Your task to perform on an android device: Open the map Image 0: 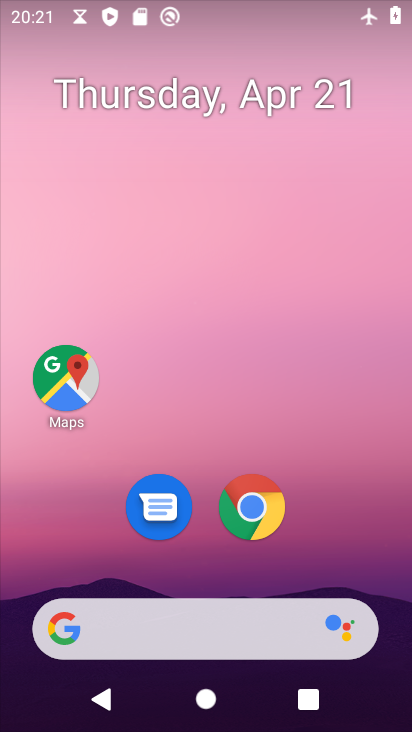
Step 0: click (58, 374)
Your task to perform on an android device: Open the map Image 1: 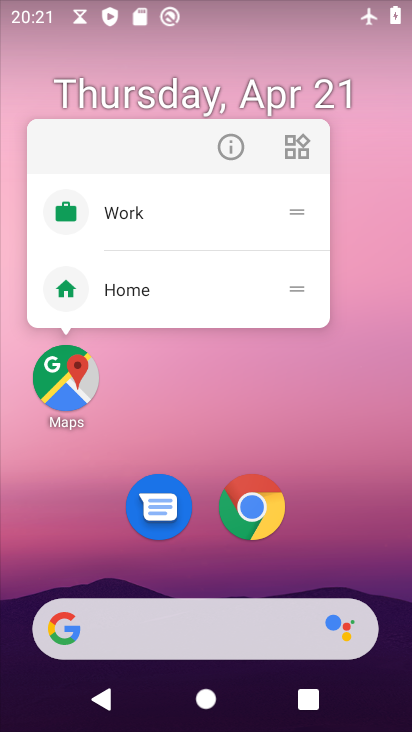
Step 1: click (70, 386)
Your task to perform on an android device: Open the map Image 2: 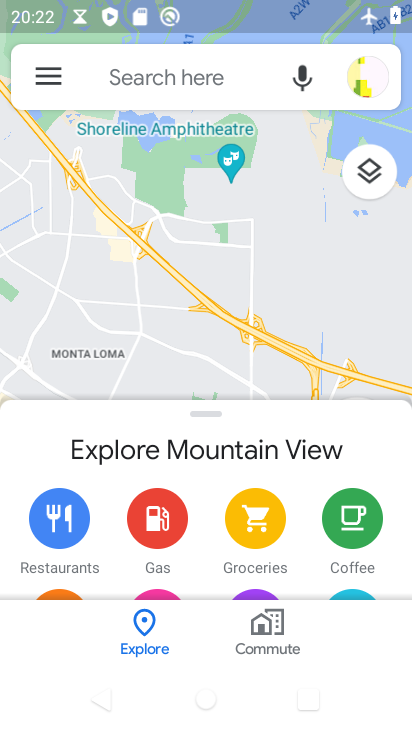
Step 2: task complete